Your task to perform on an android device: open app "Grab" (install if not already installed) and enter user name: "interspersion@gmail.com" and password: "aristocrats" Image 0: 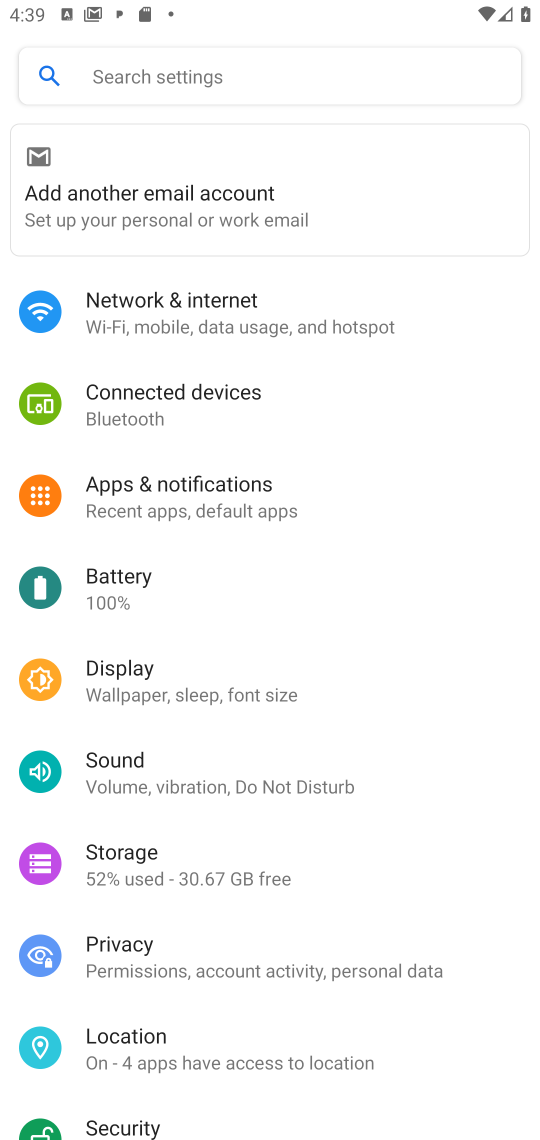
Step 0: press home button
Your task to perform on an android device: open app "Grab" (install if not already installed) and enter user name: "interspersion@gmail.com" and password: "aristocrats" Image 1: 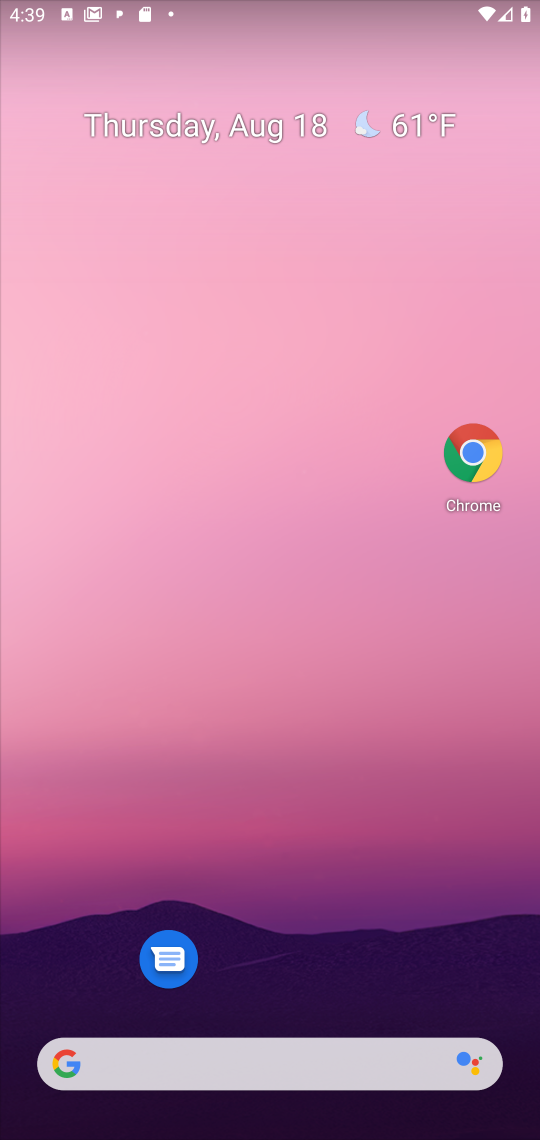
Step 1: drag from (351, 1022) to (492, 40)
Your task to perform on an android device: open app "Grab" (install if not already installed) and enter user name: "interspersion@gmail.com" and password: "aristocrats" Image 2: 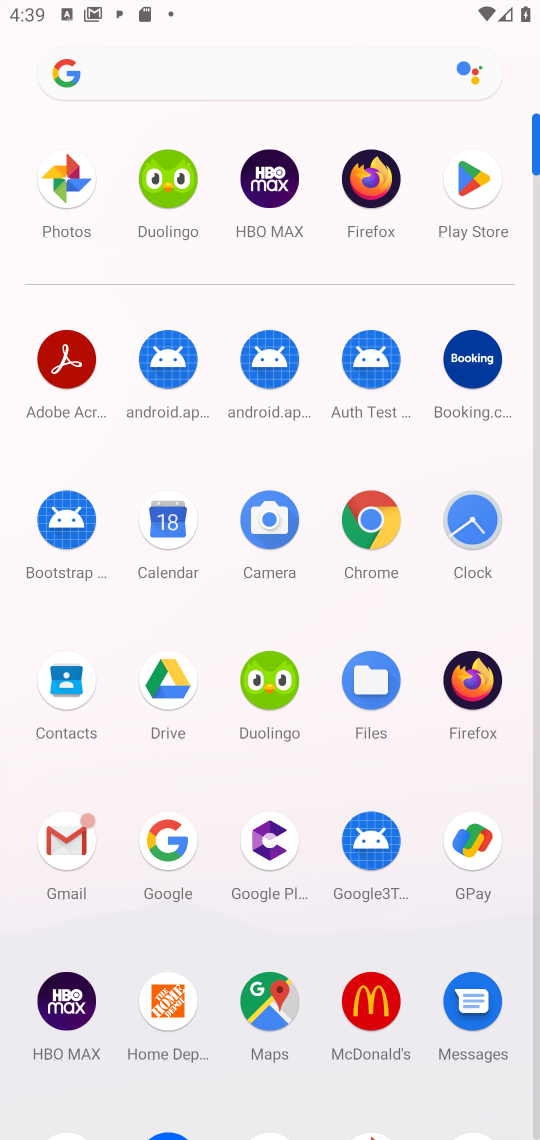
Step 2: click (476, 153)
Your task to perform on an android device: open app "Grab" (install if not already installed) and enter user name: "interspersion@gmail.com" and password: "aristocrats" Image 3: 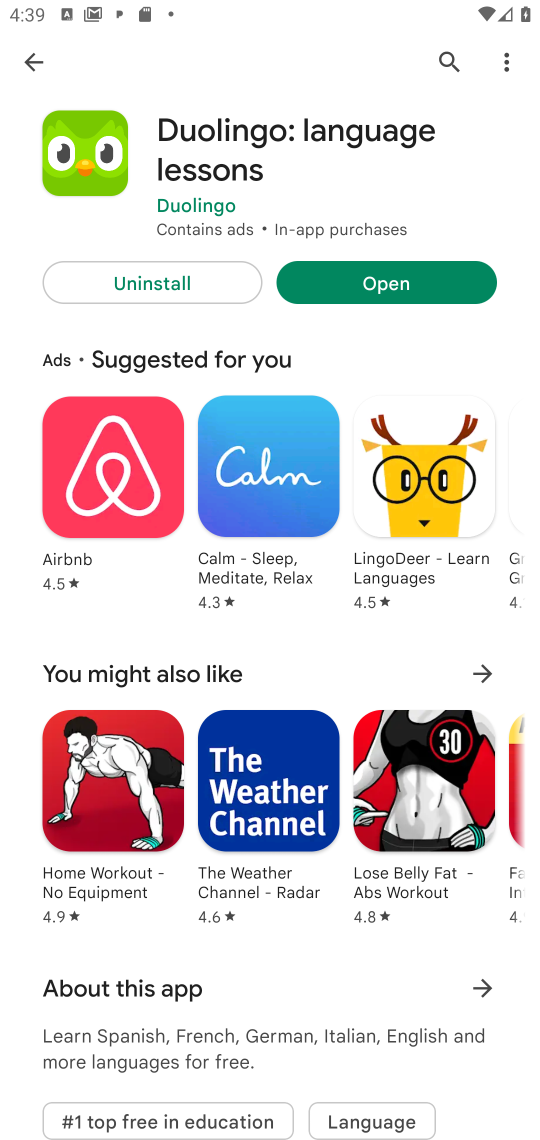
Step 3: click (36, 52)
Your task to perform on an android device: open app "Grab" (install if not already installed) and enter user name: "interspersion@gmail.com" and password: "aristocrats" Image 4: 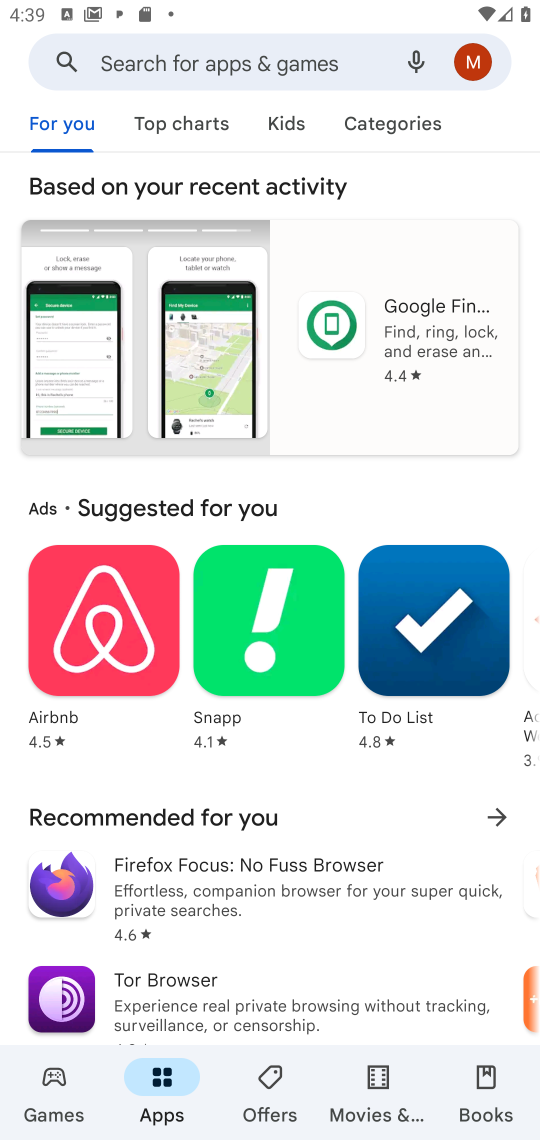
Step 4: click (319, 61)
Your task to perform on an android device: open app "Grab" (install if not already installed) and enter user name: "interspersion@gmail.com" and password: "aristocrats" Image 5: 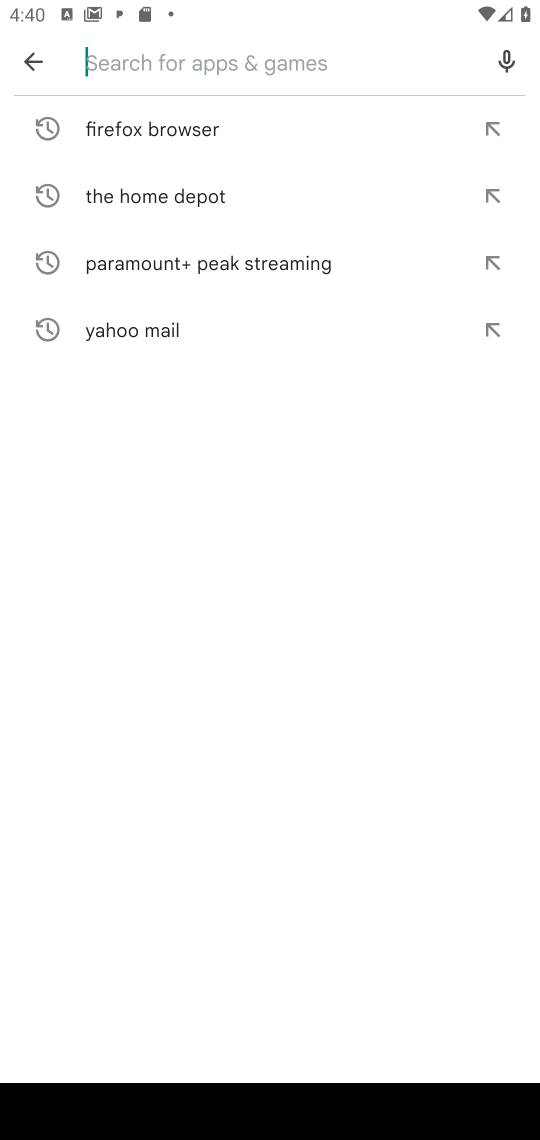
Step 5: type "Grab"
Your task to perform on an android device: open app "Grab" (install if not already installed) and enter user name: "interspersion@gmail.com" and password: "aristocrats" Image 6: 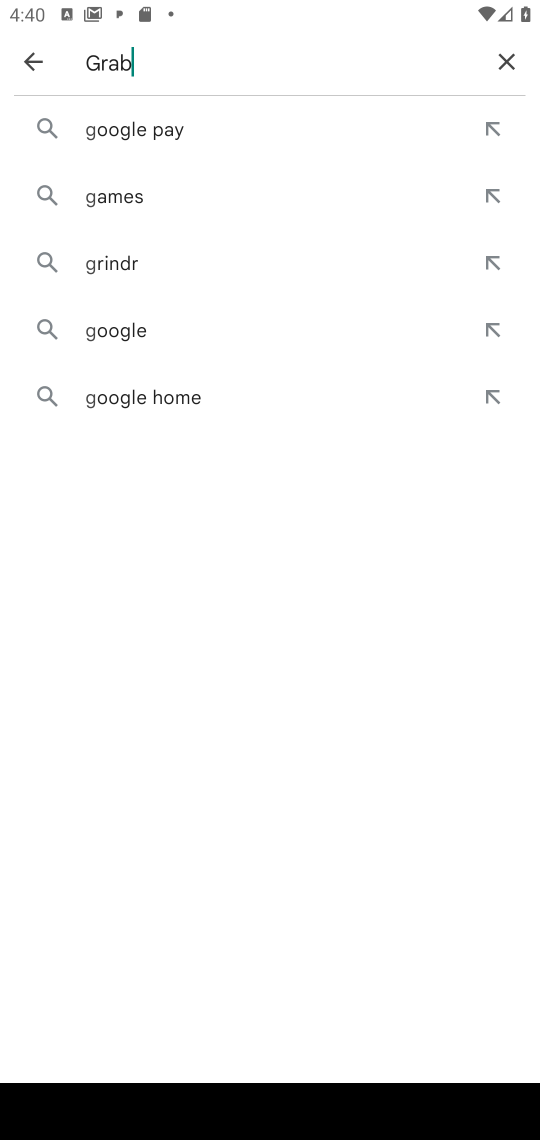
Step 6: type ""
Your task to perform on an android device: open app "Grab" (install if not already installed) and enter user name: "interspersion@gmail.com" and password: "aristocrats" Image 7: 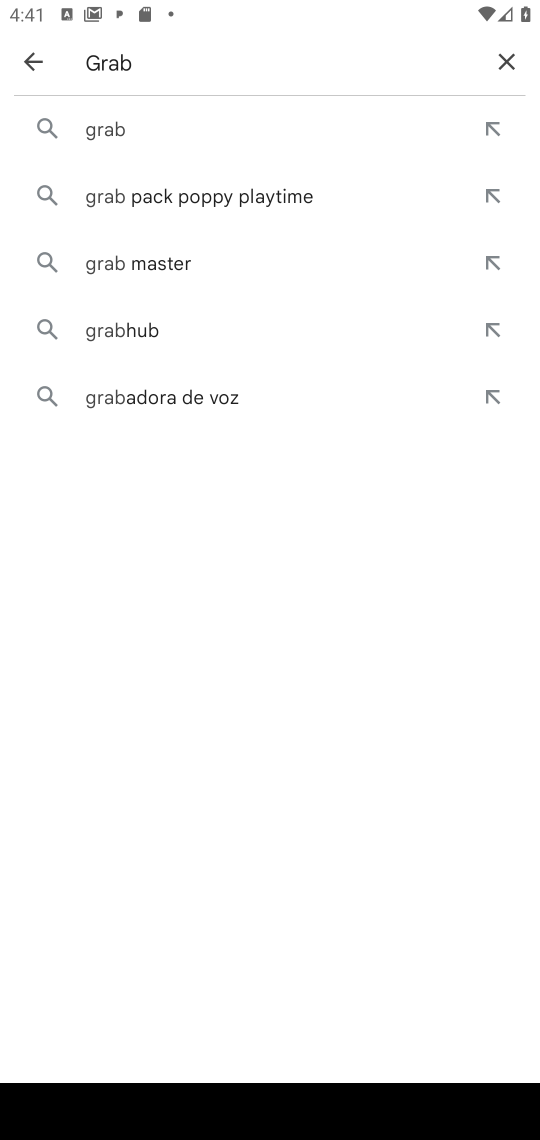
Step 7: click (193, 121)
Your task to perform on an android device: open app "Grab" (install if not already installed) and enter user name: "interspersion@gmail.com" and password: "aristocrats" Image 8: 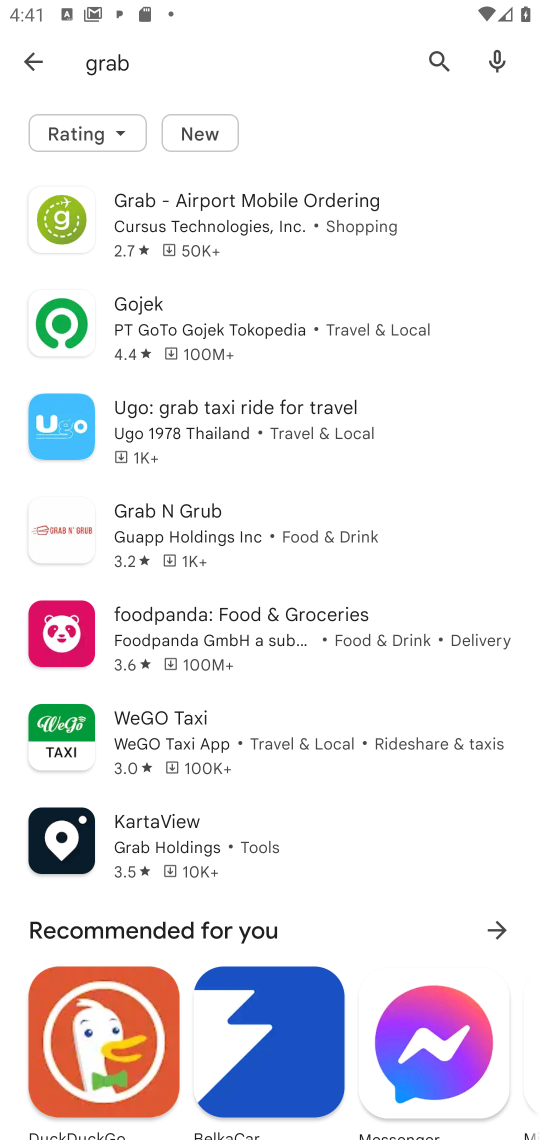
Step 8: click (323, 246)
Your task to perform on an android device: open app "Grab" (install if not already installed) and enter user name: "interspersion@gmail.com" and password: "aristocrats" Image 9: 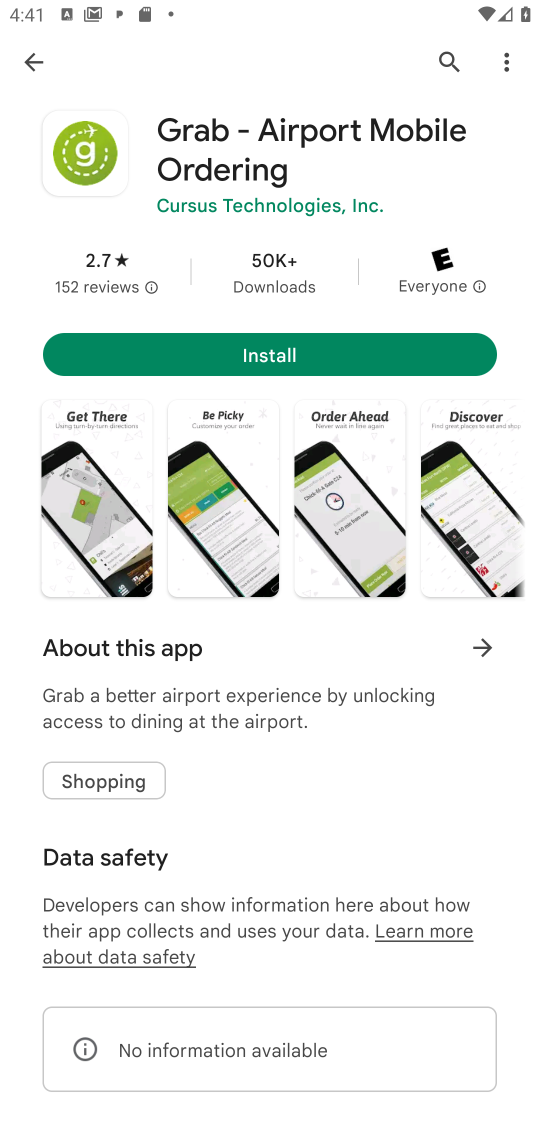
Step 9: click (280, 371)
Your task to perform on an android device: open app "Grab" (install if not already installed) and enter user name: "interspersion@gmail.com" and password: "aristocrats" Image 10: 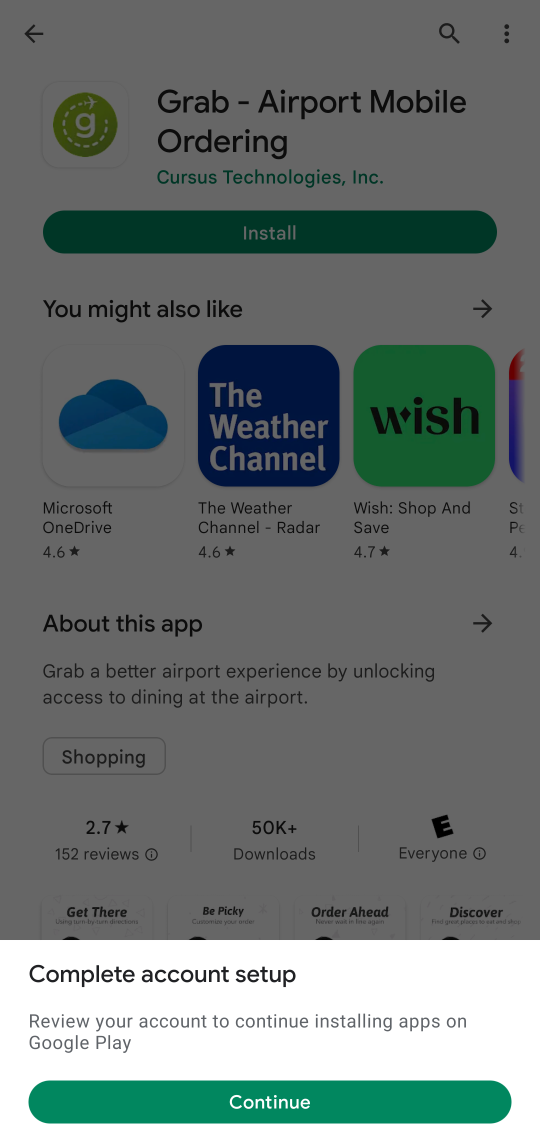
Step 10: click (247, 1110)
Your task to perform on an android device: open app "Grab" (install if not already installed) and enter user name: "interspersion@gmail.com" and password: "aristocrats" Image 11: 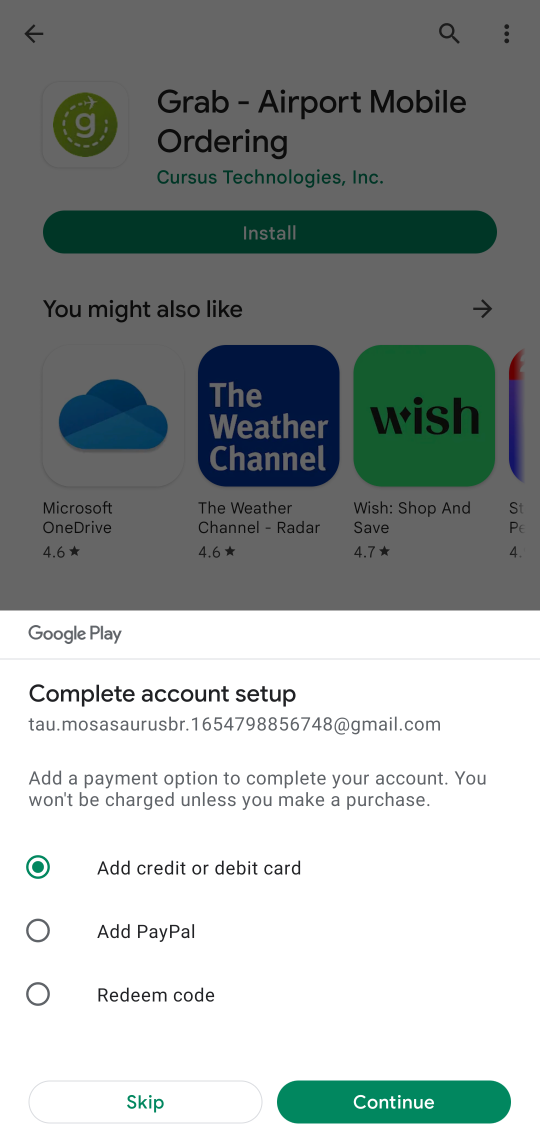
Step 11: click (142, 1091)
Your task to perform on an android device: open app "Grab" (install if not already installed) and enter user name: "interspersion@gmail.com" and password: "aristocrats" Image 12: 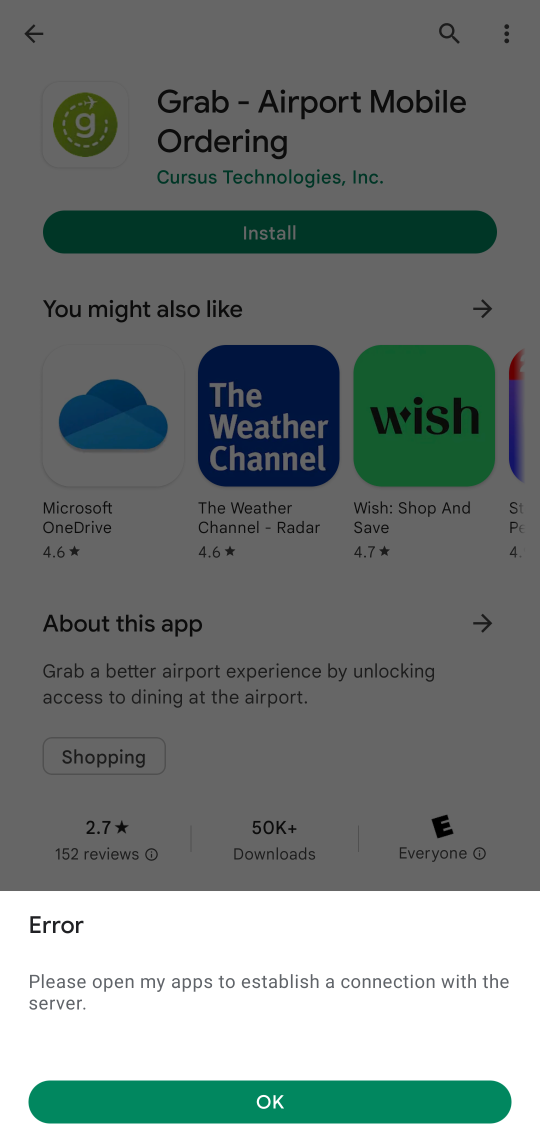
Step 12: task complete